Your task to perform on an android device: Open Youtube and go to the subscriptions tab Image 0: 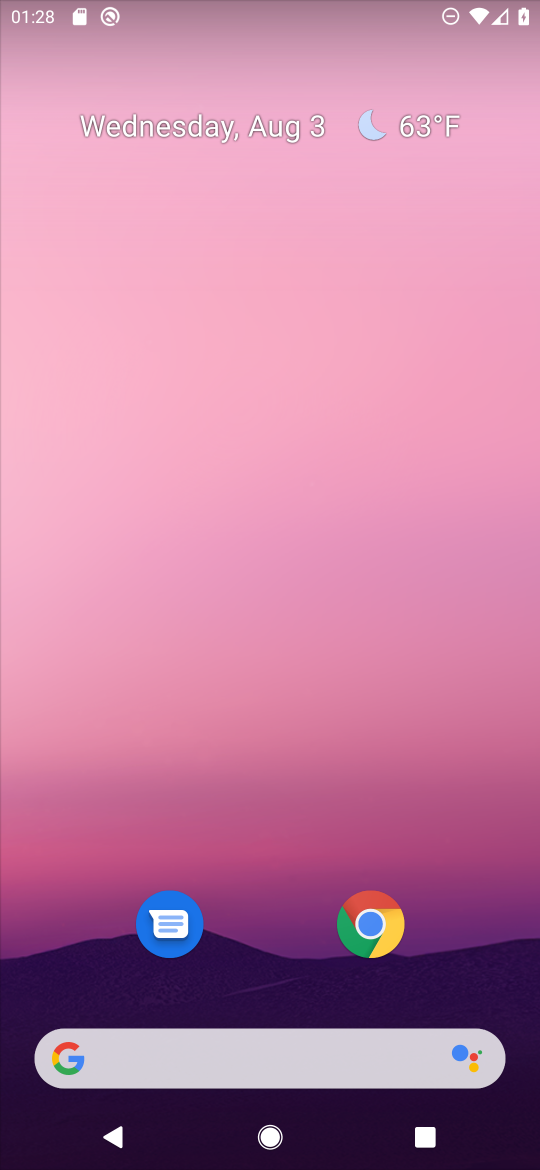
Step 0: drag from (301, 975) to (302, 9)
Your task to perform on an android device: Open Youtube and go to the subscriptions tab Image 1: 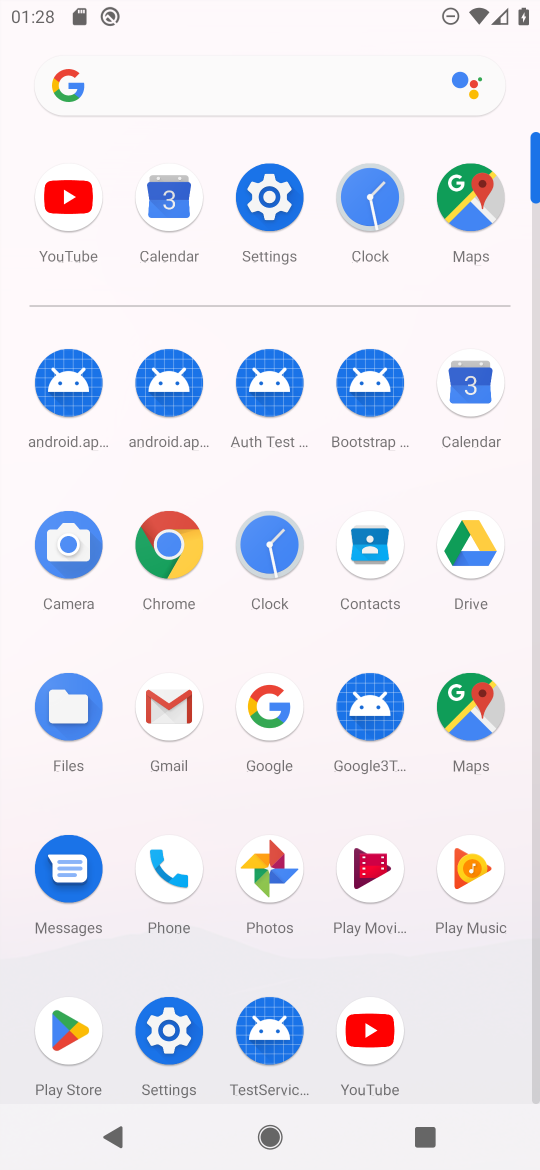
Step 1: click (373, 1047)
Your task to perform on an android device: Open Youtube and go to the subscriptions tab Image 2: 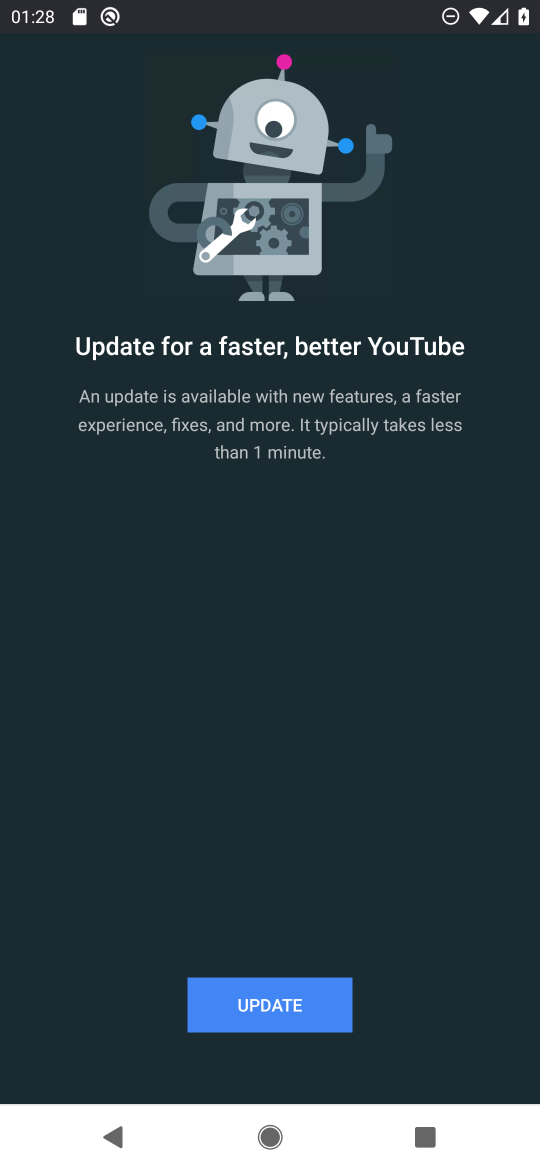
Step 2: task complete